Your task to perform on an android device: turn on wifi Image 0: 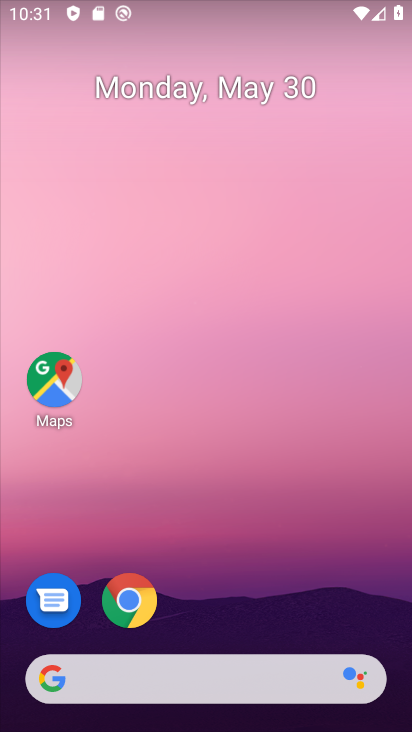
Step 0: drag from (146, 7) to (101, 465)
Your task to perform on an android device: turn on wifi Image 1: 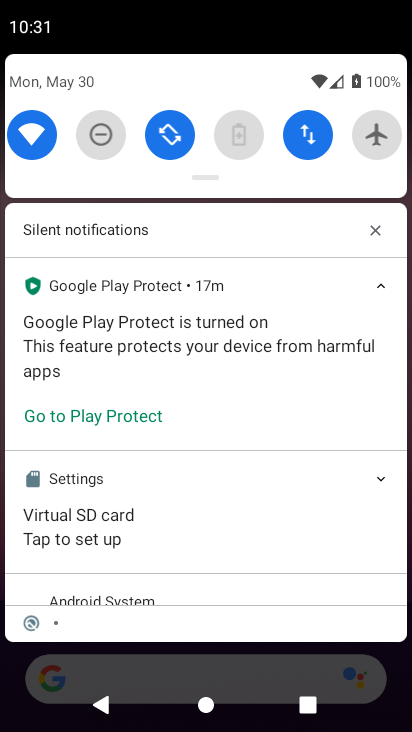
Step 1: task complete